Your task to perform on an android device: turn on javascript in the chrome app Image 0: 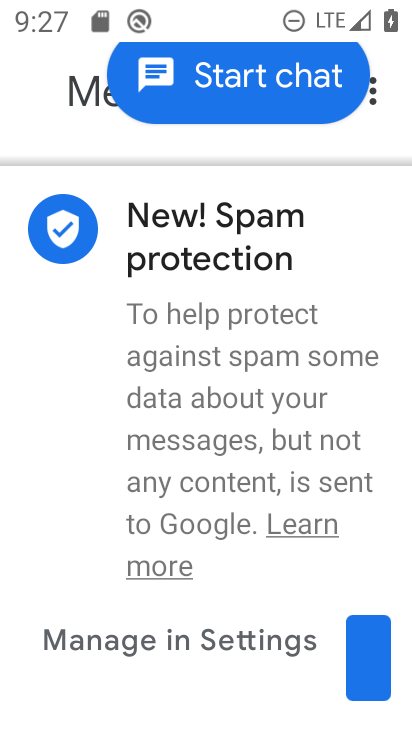
Step 0: press home button
Your task to perform on an android device: turn on javascript in the chrome app Image 1: 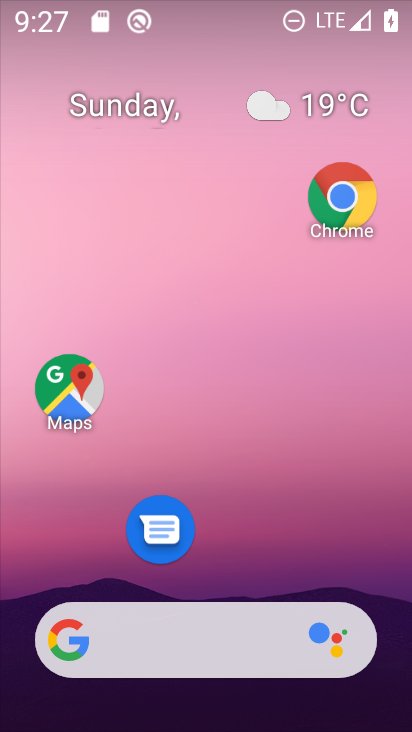
Step 1: click (338, 188)
Your task to perform on an android device: turn on javascript in the chrome app Image 2: 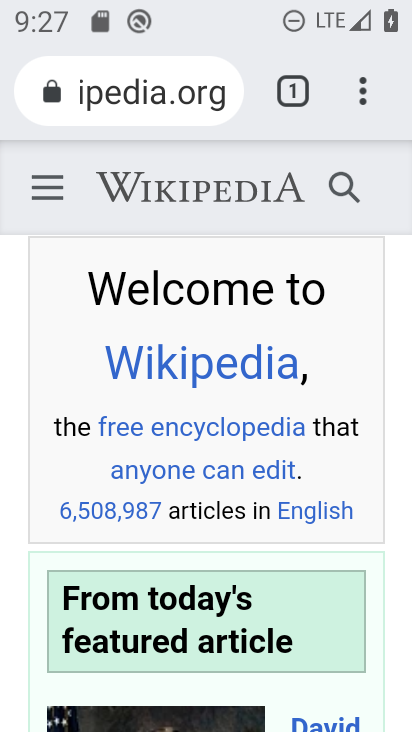
Step 2: click (365, 81)
Your task to perform on an android device: turn on javascript in the chrome app Image 3: 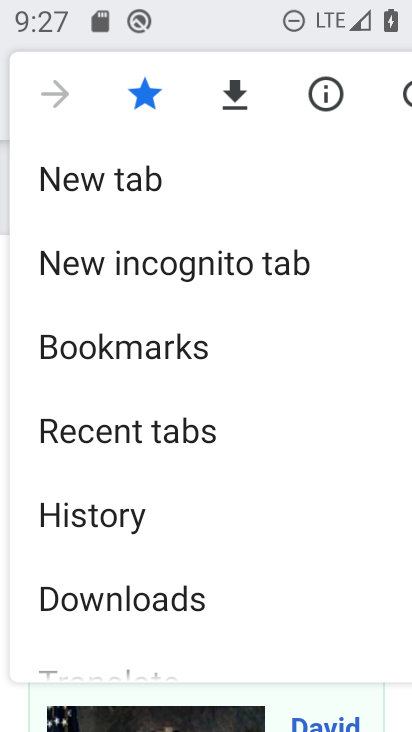
Step 3: drag from (239, 597) to (248, 483)
Your task to perform on an android device: turn on javascript in the chrome app Image 4: 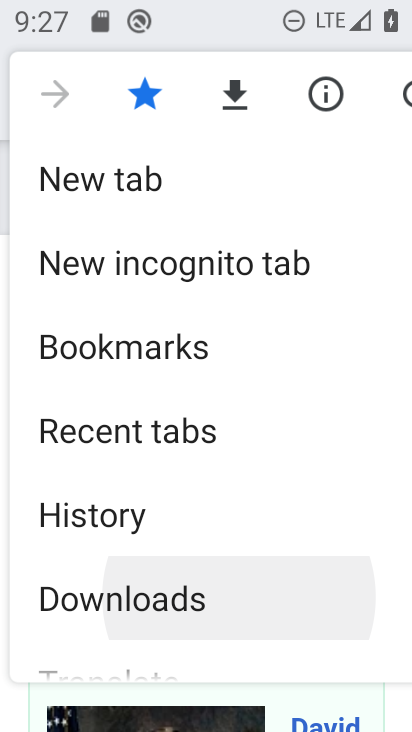
Step 4: drag from (257, 295) to (263, 126)
Your task to perform on an android device: turn on javascript in the chrome app Image 5: 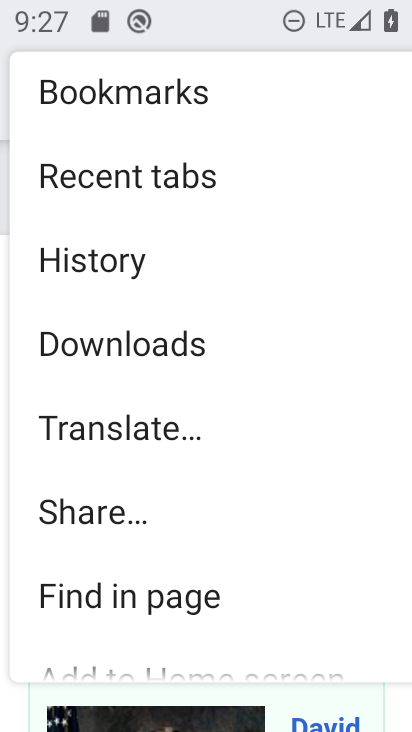
Step 5: drag from (233, 613) to (233, 420)
Your task to perform on an android device: turn on javascript in the chrome app Image 6: 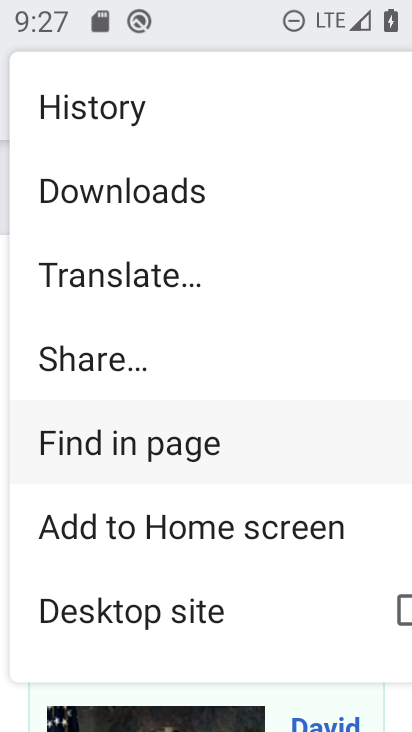
Step 6: drag from (233, 335) to (234, 272)
Your task to perform on an android device: turn on javascript in the chrome app Image 7: 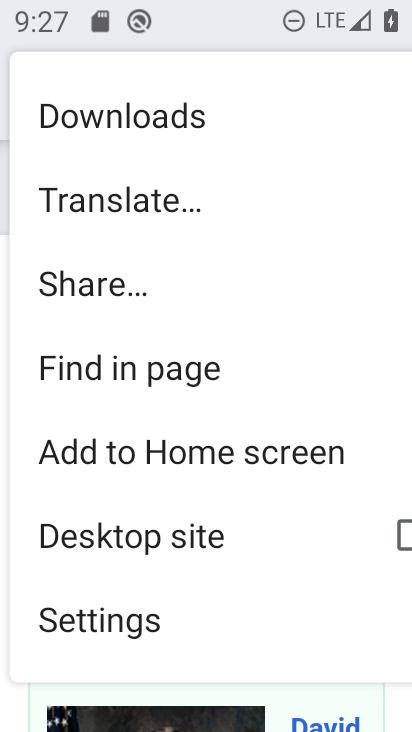
Step 7: click (176, 615)
Your task to perform on an android device: turn on javascript in the chrome app Image 8: 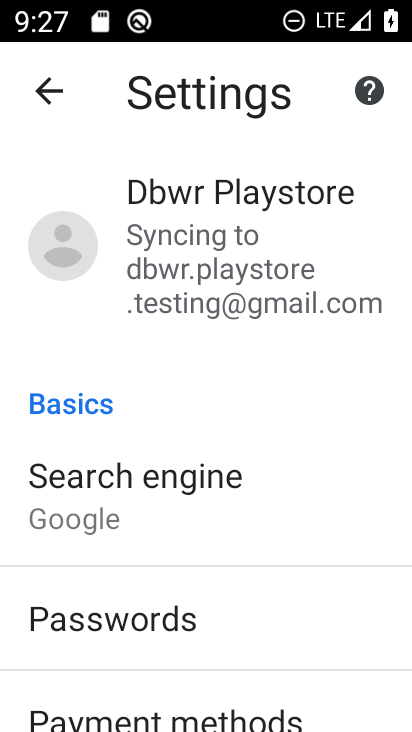
Step 8: drag from (294, 658) to (304, 168)
Your task to perform on an android device: turn on javascript in the chrome app Image 9: 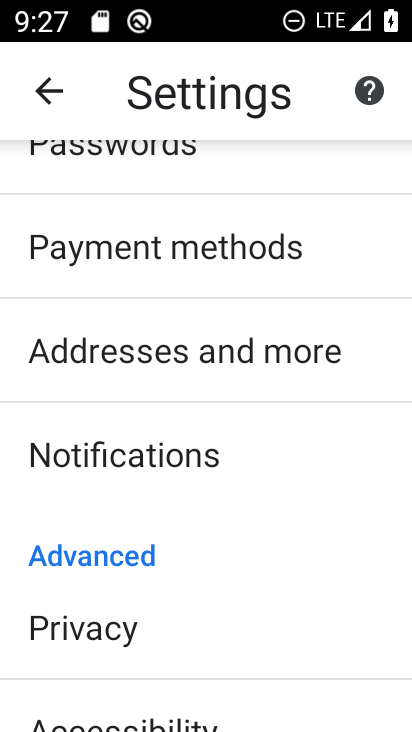
Step 9: drag from (269, 675) to (283, 183)
Your task to perform on an android device: turn on javascript in the chrome app Image 10: 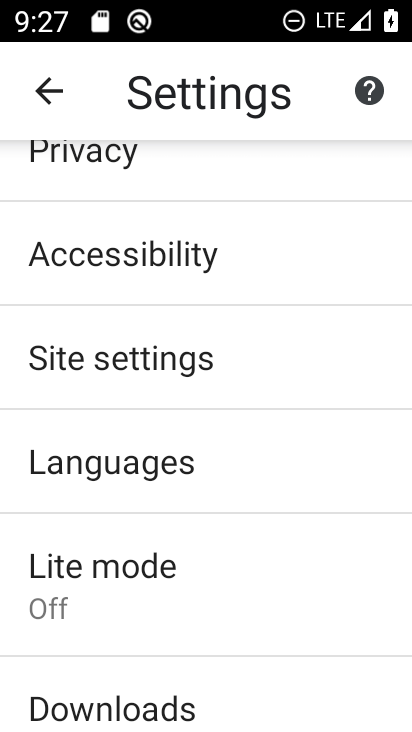
Step 10: click (242, 357)
Your task to perform on an android device: turn on javascript in the chrome app Image 11: 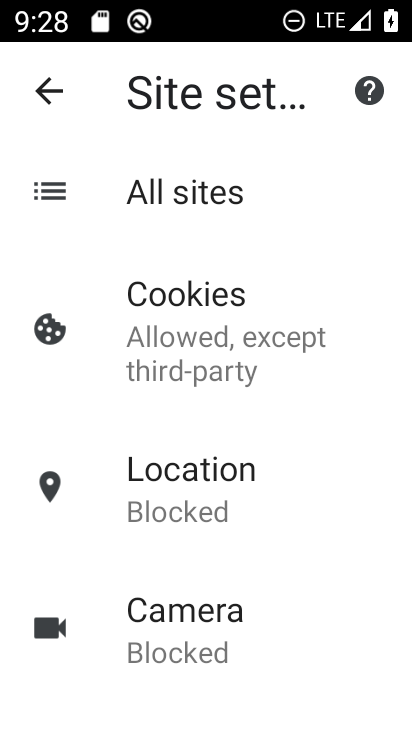
Step 11: drag from (251, 624) to (276, 221)
Your task to perform on an android device: turn on javascript in the chrome app Image 12: 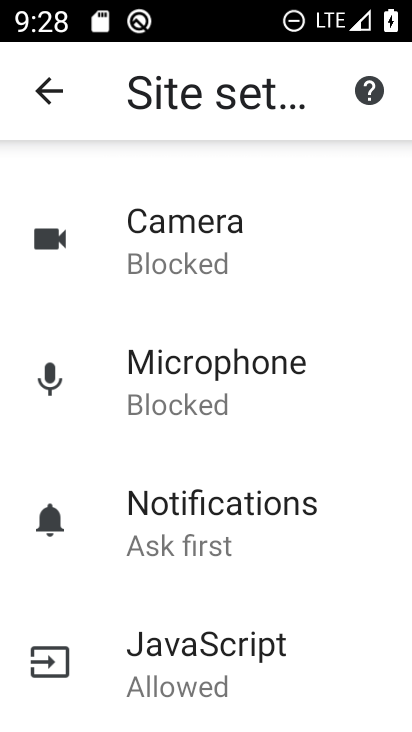
Step 12: click (220, 657)
Your task to perform on an android device: turn on javascript in the chrome app Image 13: 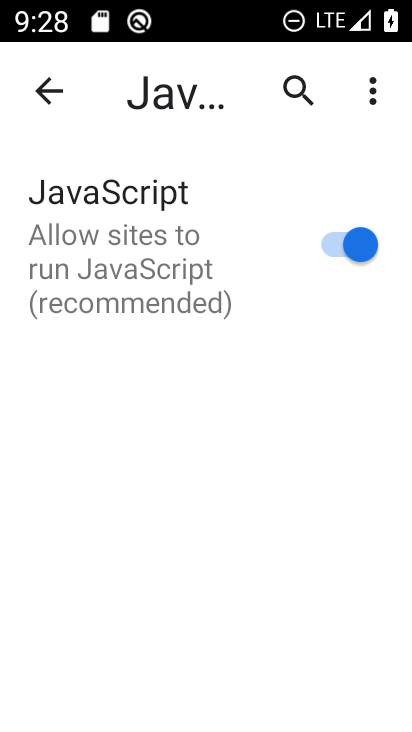
Step 13: task complete